Your task to perform on an android device: open a bookmark in the chrome app Image 0: 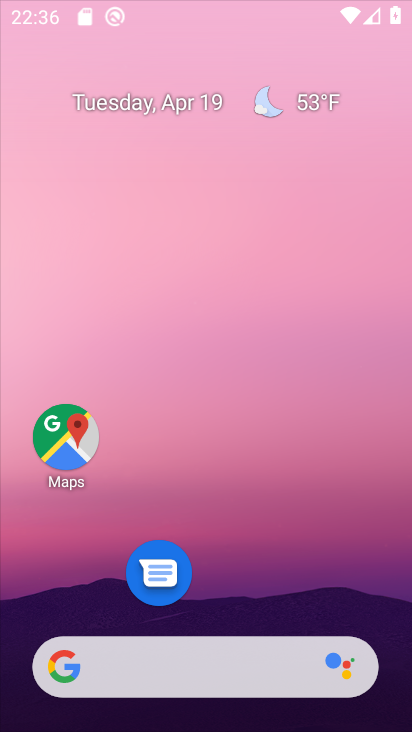
Step 0: drag from (215, 595) to (197, 94)
Your task to perform on an android device: open a bookmark in the chrome app Image 1: 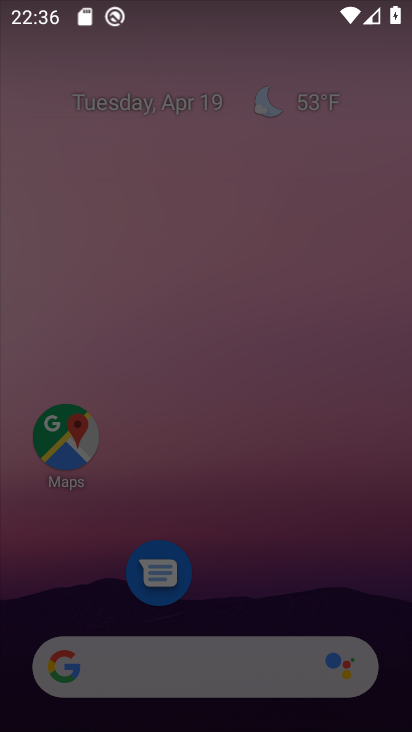
Step 1: press home button
Your task to perform on an android device: open a bookmark in the chrome app Image 2: 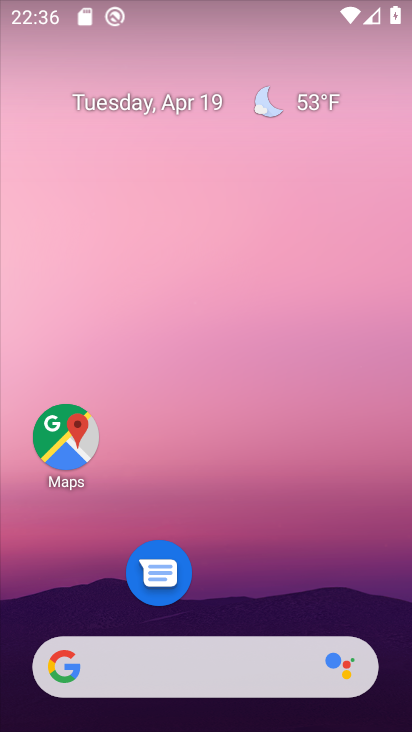
Step 2: drag from (220, 606) to (212, 46)
Your task to perform on an android device: open a bookmark in the chrome app Image 3: 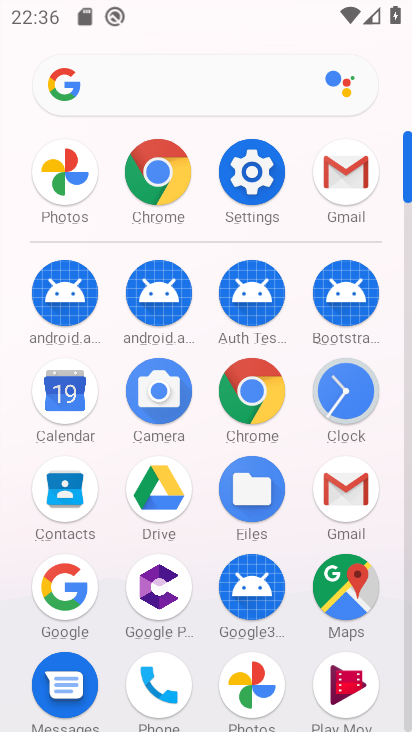
Step 3: click (155, 166)
Your task to perform on an android device: open a bookmark in the chrome app Image 4: 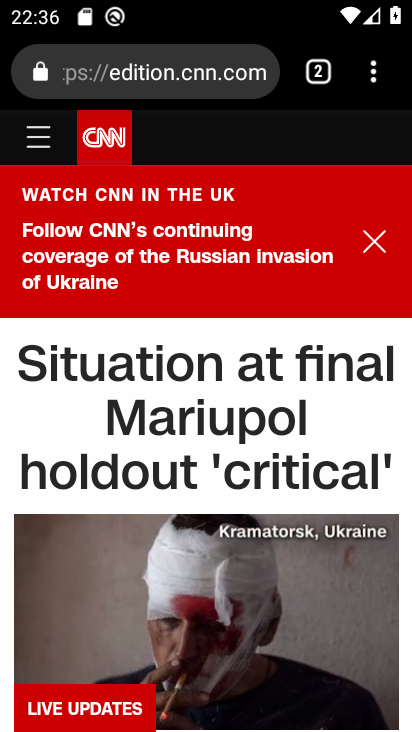
Step 4: click (372, 70)
Your task to perform on an android device: open a bookmark in the chrome app Image 5: 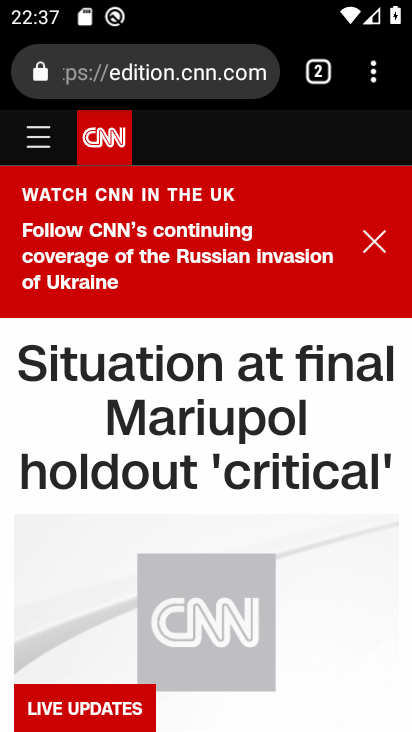
Step 5: click (376, 68)
Your task to perform on an android device: open a bookmark in the chrome app Image 6: 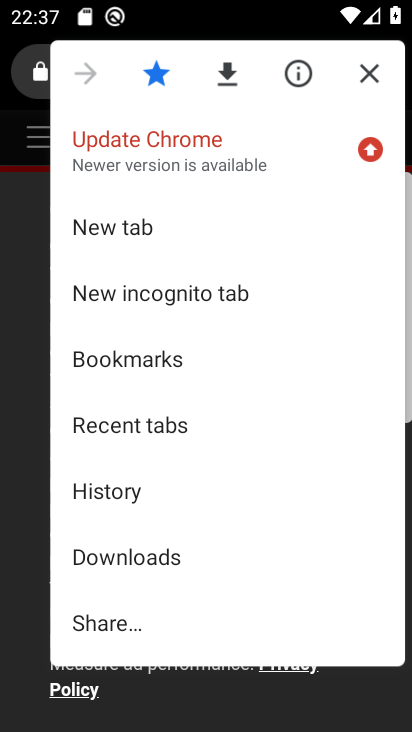
Step 6: click (190, 357)
Your task to perform on an android device: open a bookmark in the chrome app Image 7: 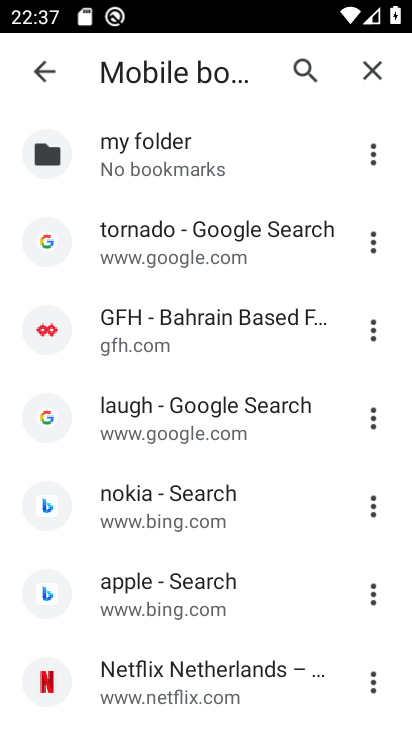
Step 7: click (165, 680)
Your task to perform on an android device: open a bookmark in the chrome app Image 8: 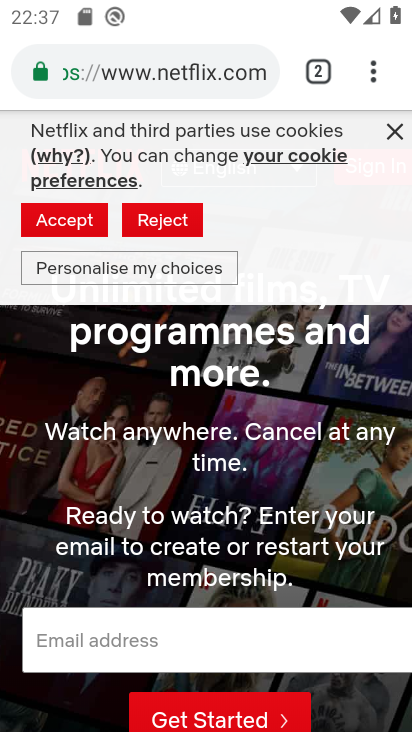
Step 8: task complete